Your task to perform on an android device: star an email in the gmail app Image 0: 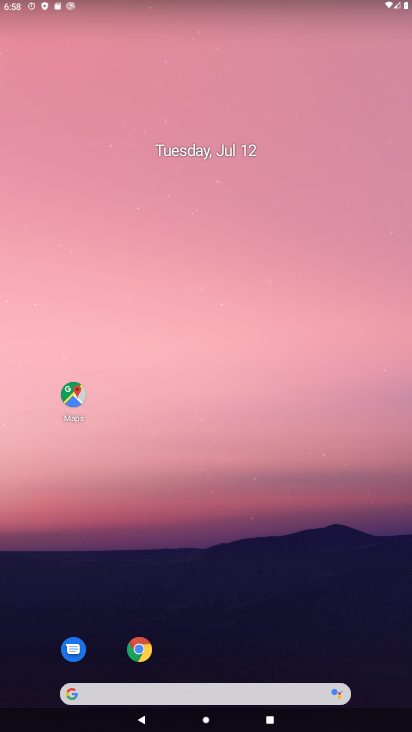
Step 0: drag from (212, 692) to (254, 259)
Your task to perform on an android device: star an email in the gmail app Image 1: 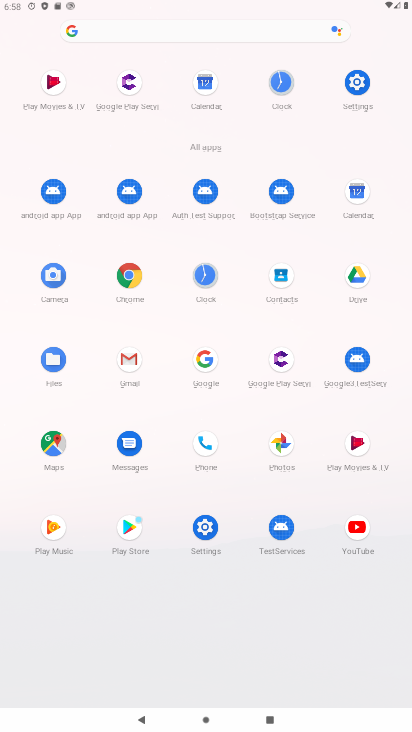
Step 1: click (128, 359)
Your task to perform on an android device: star an email in the gmail app Image 2: 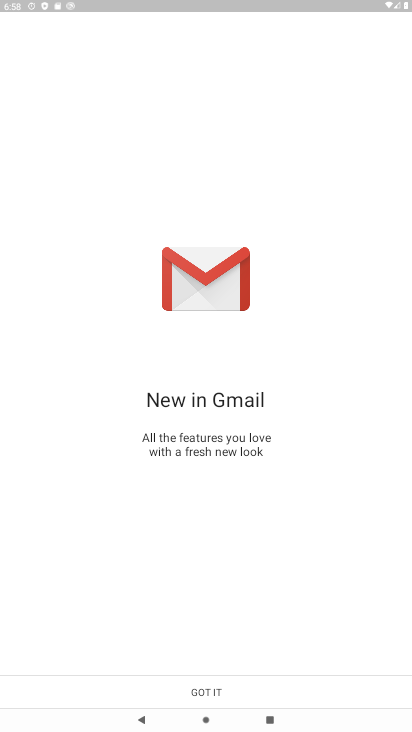
Step 2: click (200, 691)
Your task to perform on an android device: star an email in the gmail app Image 3: 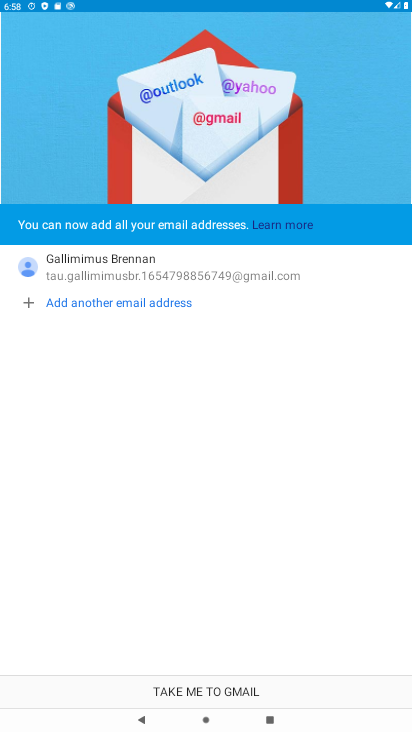
Step 3: click (200, 691)
Your task to perform on an android device: star an email in the gmail app Image 4: 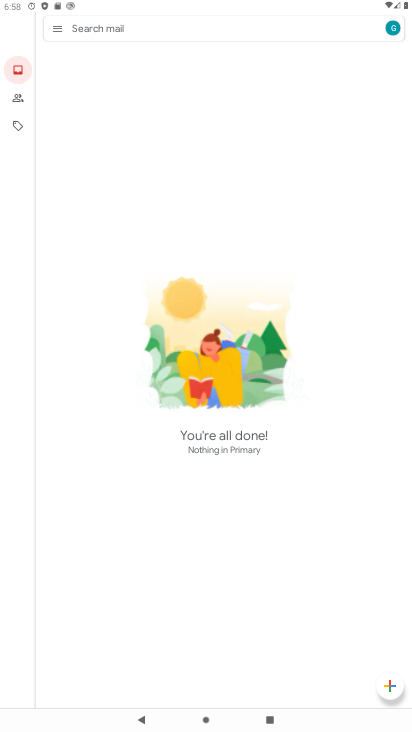
Step 4: click (55, 29)
Your task to perform on an android device: star an email in the gmail app Image 5: 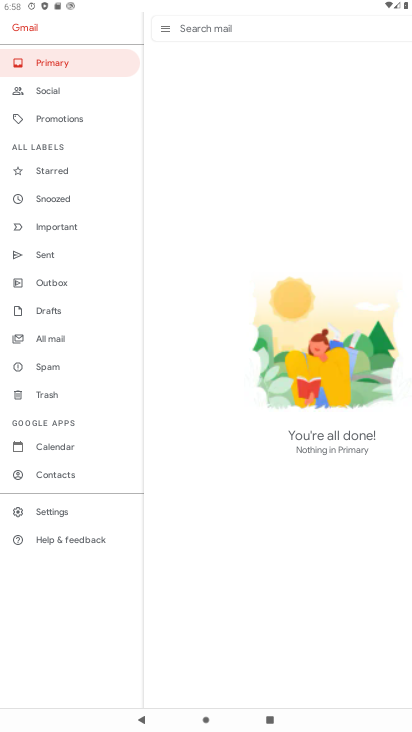
Step 5: click (44, 343)
Your task to perform on an android device: star an email in the gmail app Image 6: 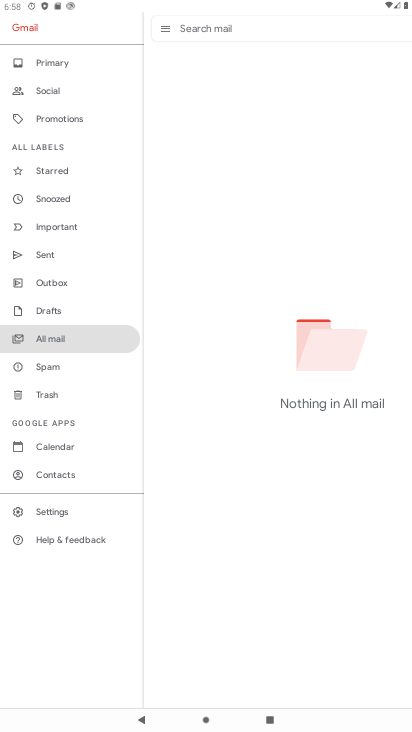
Step 6: click (45, 91)
Your task to perform on an android device: star an email in the gmail app Image 7: 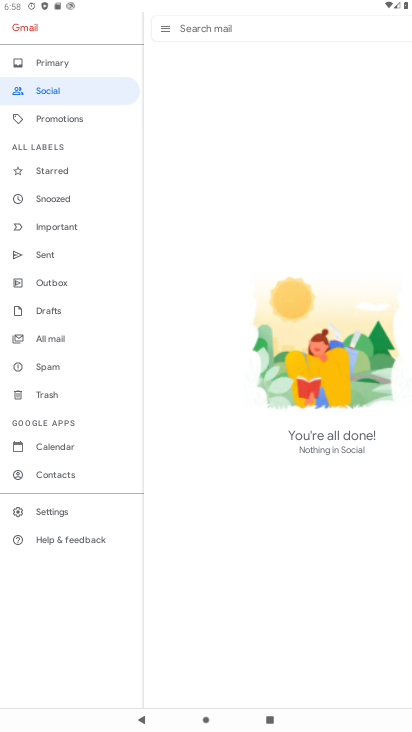
Step 7: click (56, 120)
Your task to perform on an android device: star an email in the gmail app Image 8: 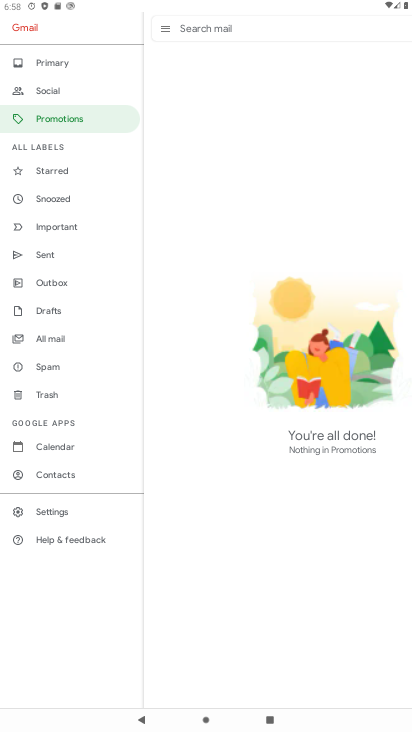
Step 8: click (55, 169)
Your task to perform on an android device: star an email in the gmail app Image 9: 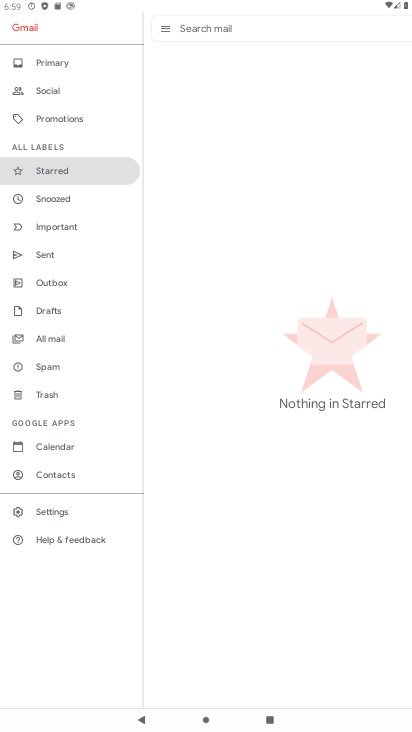
Step 9: click (53, 195)
Your task to perform on an android device: star an email in the gmail app Image 10: 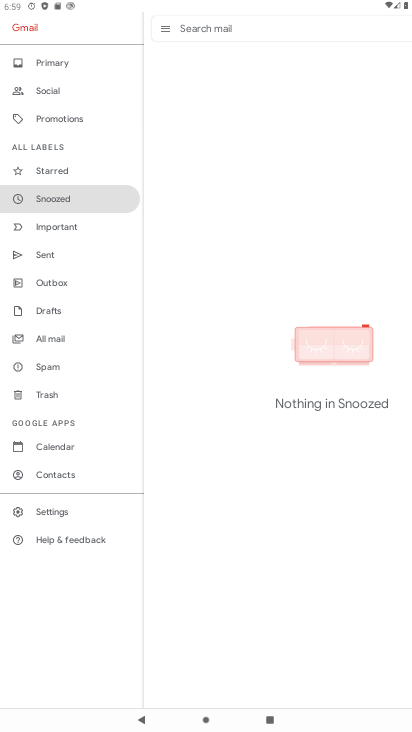
Step 10: click (50, 232)
Your task to perform on an android device: star an email in the gmail app Image 11: 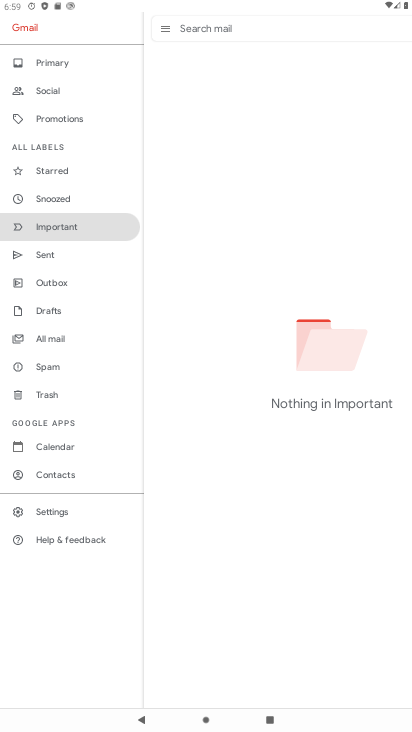
Step 11: click (43, 257)
Your task to perform on an android device: star an email in the gmail app Image 12: 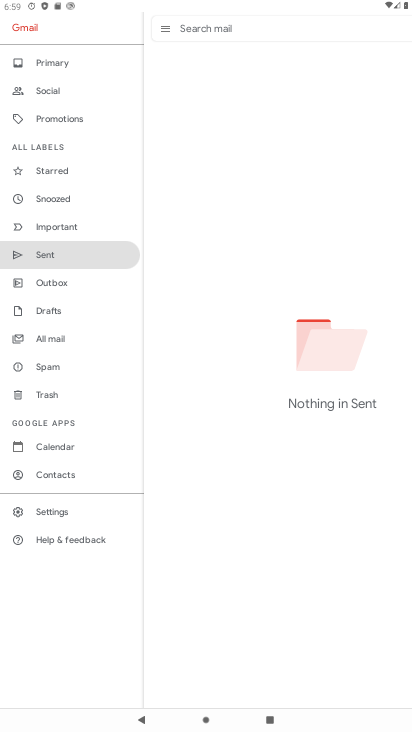
Step 12: click (45, 285)
Your task to perform on an android device: star an email in the gmail app Image 13: 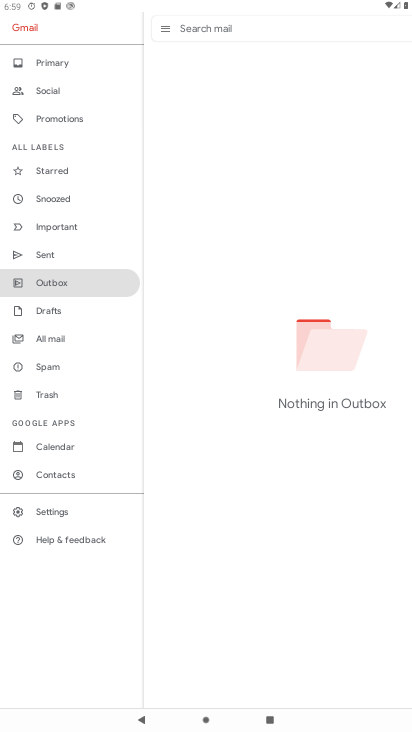
Step 13: click (46, 311)
Your task to perform on an android device: star an email in the gmail app Image 14: 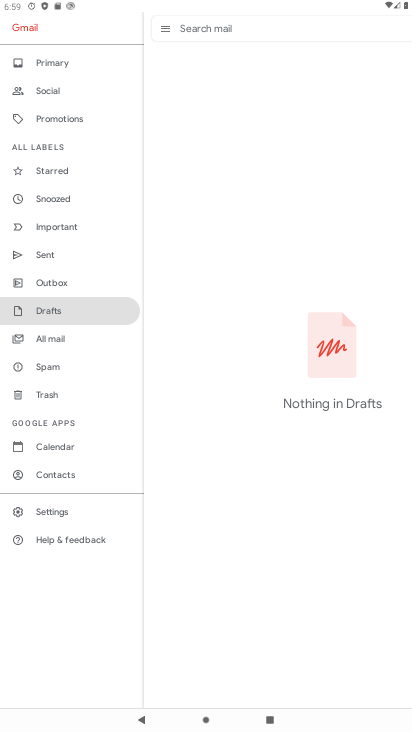
Step 14: click (49, 334)
Your task to perform on an android device: star an email in the gmail app Image 15: 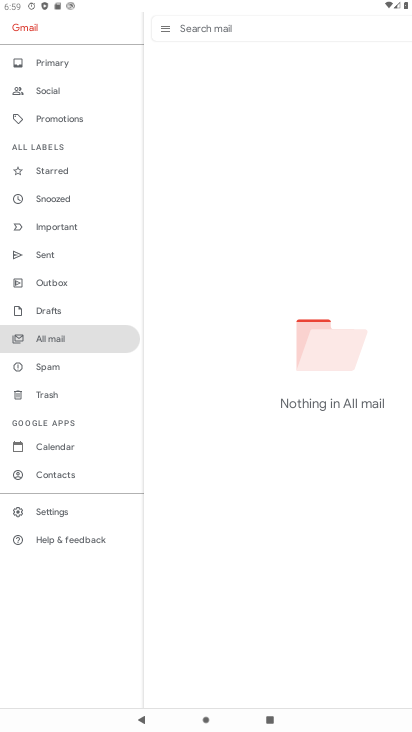
Step 15: click (51, 361)
Your task to perform on an android device: star an email in the gmail app Image 16: 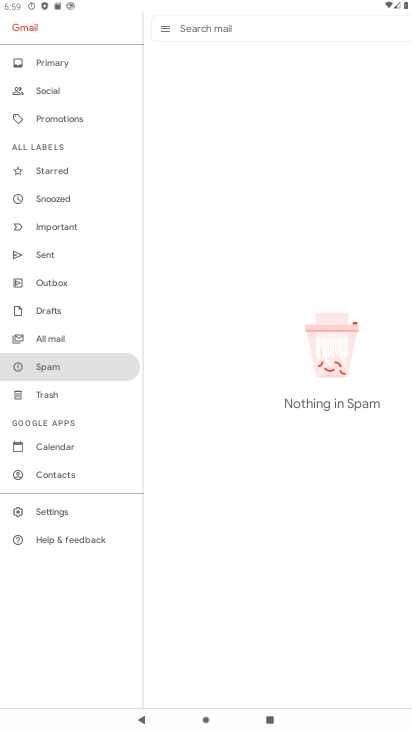
Step 16: click (47, 392)
Your task to perform on an android device: star an email in the gmail app Image 17: 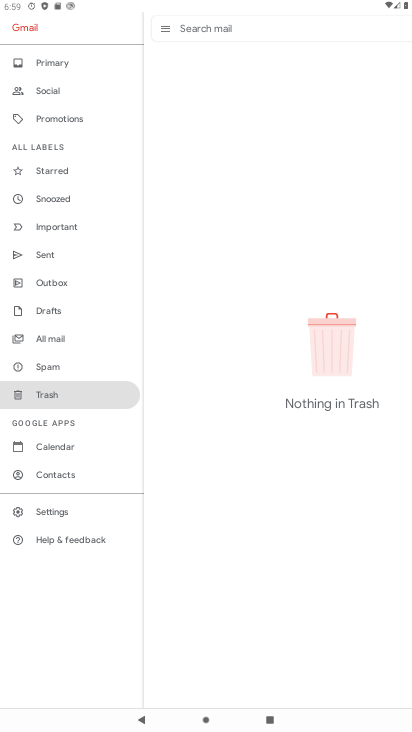
Step 17: task complete